Your task to perform on an android device: Open privacy settings Image 0: 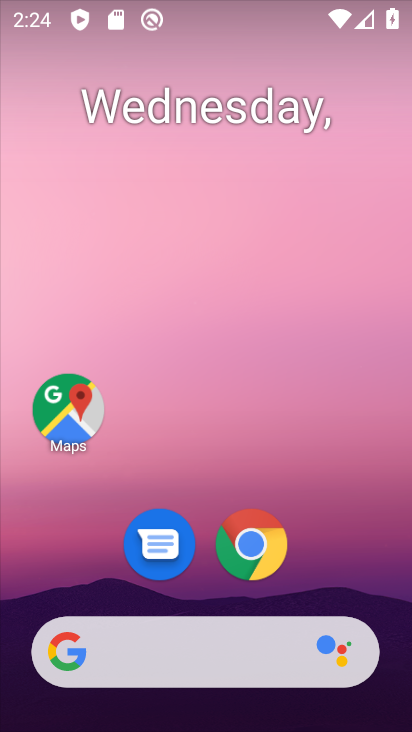
Step 0: click (269, 566)
Your task to perform on an android device: Open privacy settings Image 1: 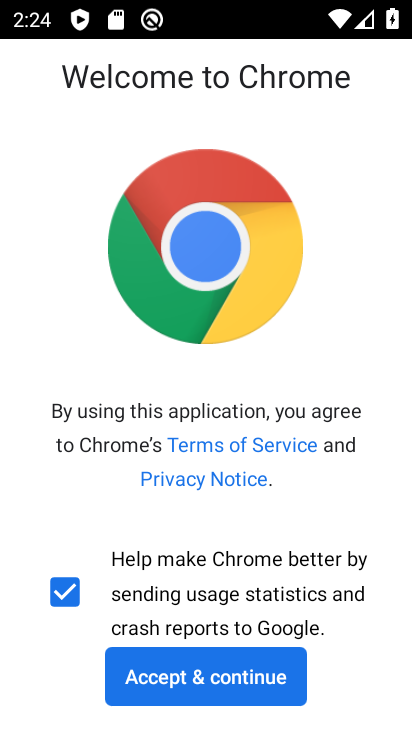
Step 1: click (286, 673)
Your task to perform on an android device: Open privacy settings Image 2: 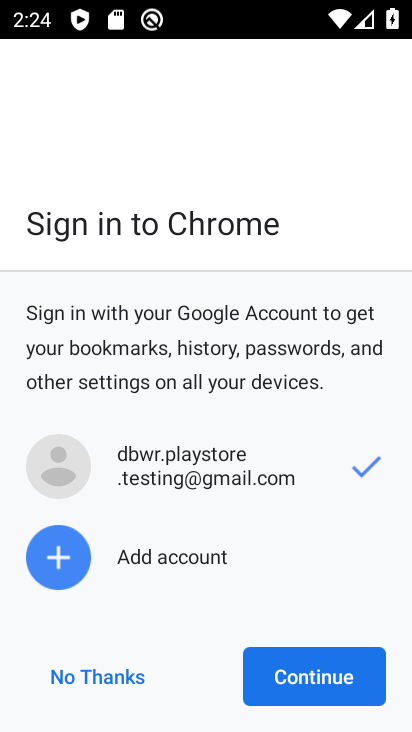
Step 2: click (286, 672)
Your task to perform on an android device: Open privacy settings Image 3: 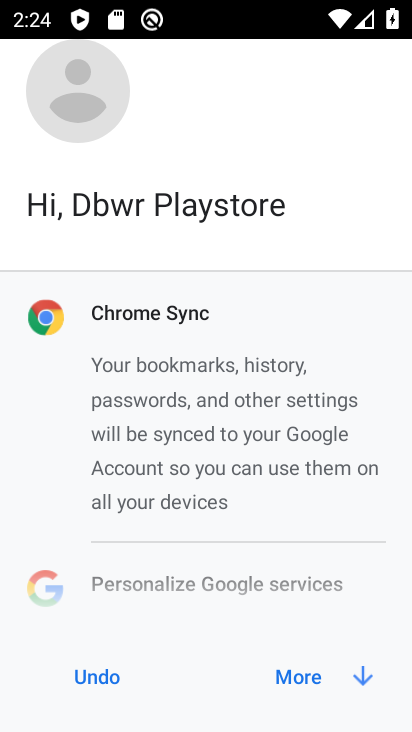
Step 3: click (288, 674)
Your task to perform on an android device: Open privacy settings Image 4: 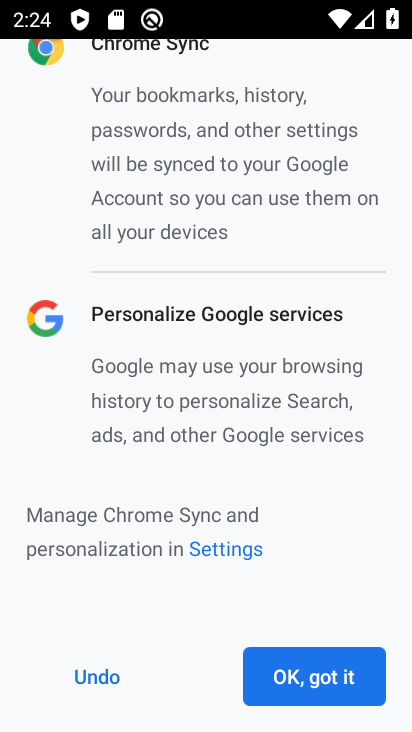
Step 4: click (288, 674)
Your task to perform on an android device: Open privacy settings Image 5: 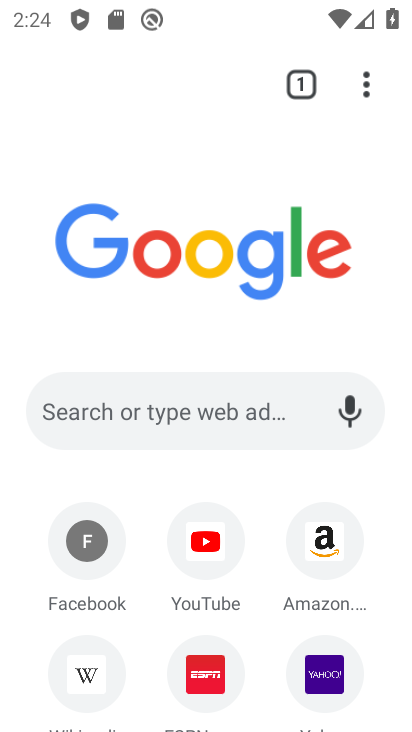
Step 5: drag from (381, 85) to (316, 596)
Your task to perform on an android device: Open privacy settings Image 6: 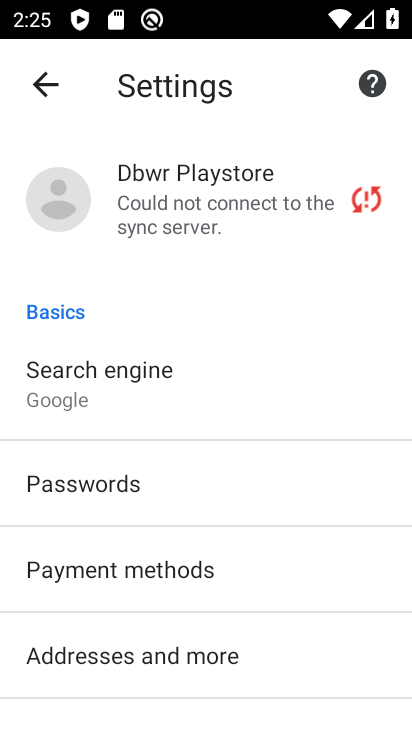
Step 6: drag from (148, 657) to (235, 365)
Your task to perform on an android device: Open privacy settings Image 7: 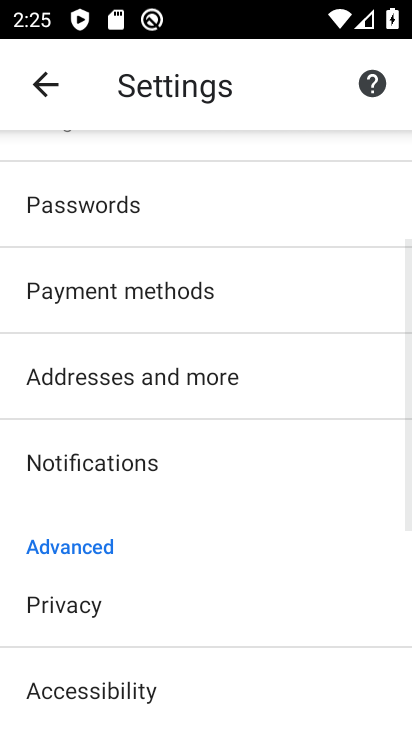
Step 7: click (165, 624)
Your task to perform on an android device: Open privacy settings Image 8: 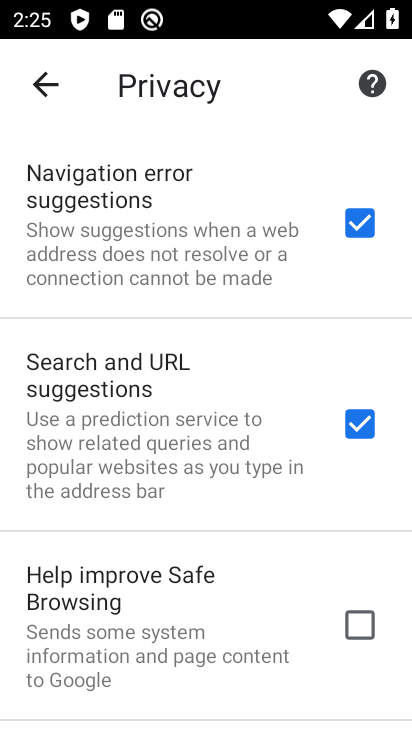
Step 8: task complete